Your task to perform on an android device: turn pop-ups on in chrome Image 0: 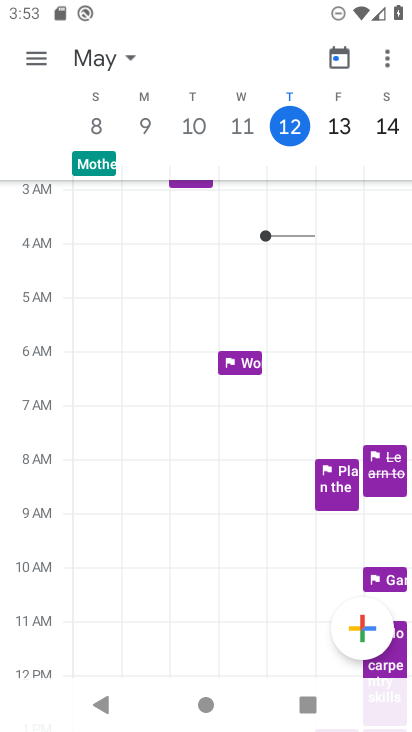
Step 0: press home button
Your task to perform on an android device: turn pop-ups on in chrome Image 1: 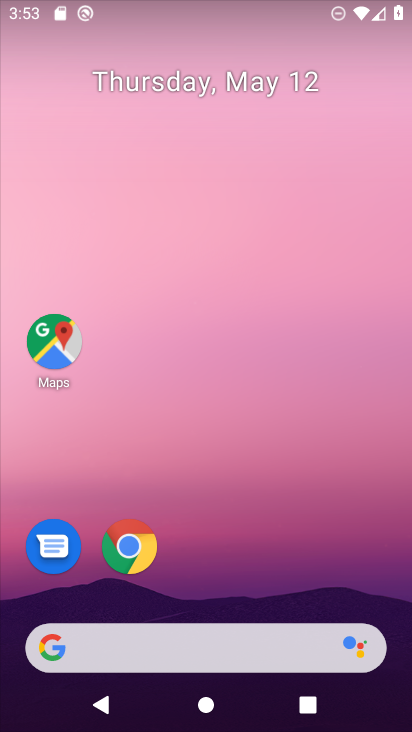
Step 1: drag from (276, 599) to (283, 295)
Your task to perform on an android device: turn pop-ups on in chrome Image 2: 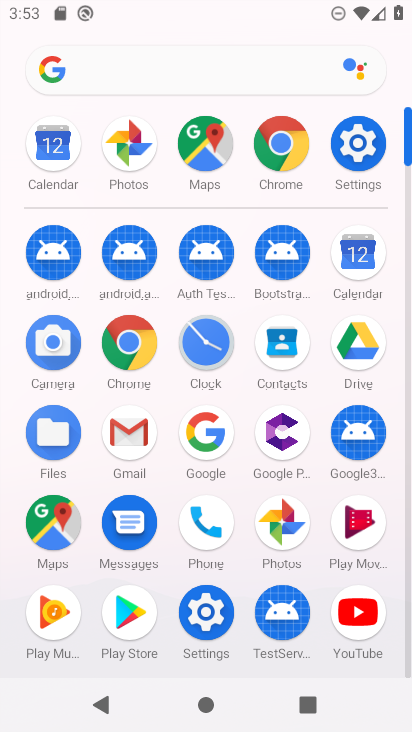
Step 2: click (276, 145)
Your task to perform on an android device: turn pop-ups on in chrome Image 3: 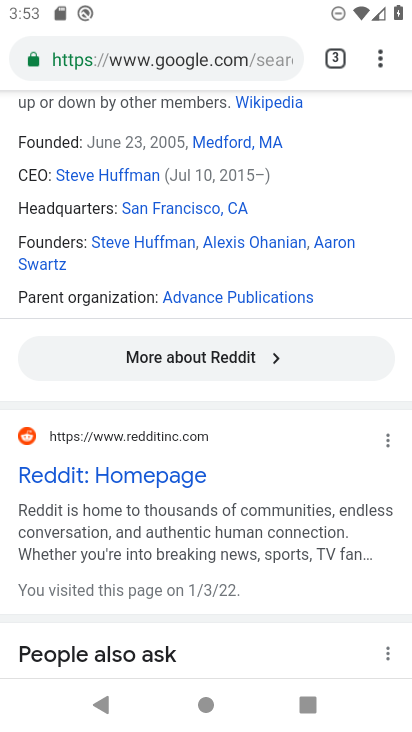
Step 3: click (371, 60)
Your task to perform on an android device: turn pop-ups on in chrome Image 4: 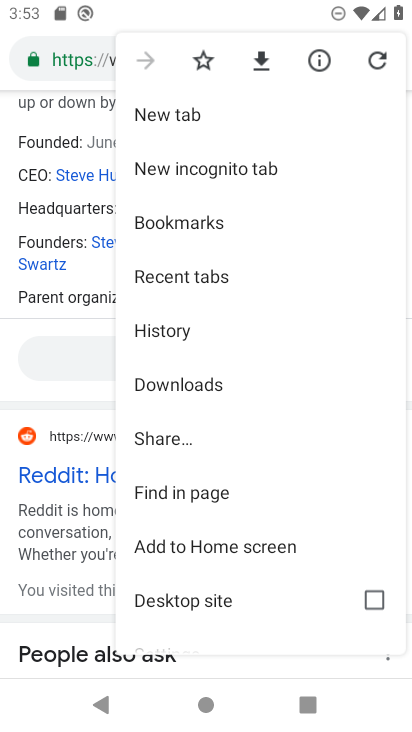
Step 4: drag from (232, 514) to (283, 216)
Your task to perform on an android device: turn pop-ups on in chrome Image 5: 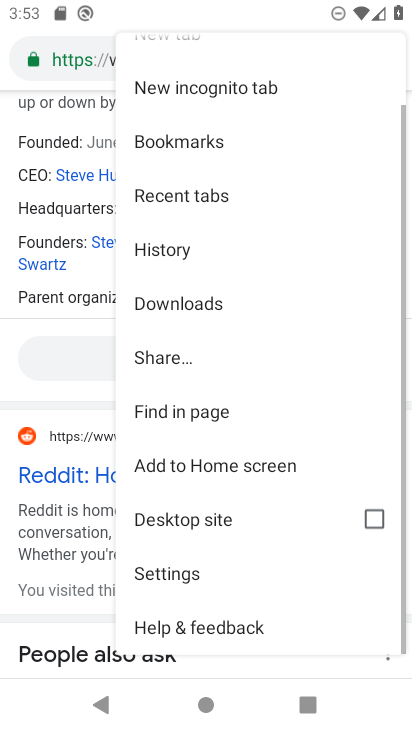
Step 5: click (197, 567)
Your task to perform on an android device: turn pop-ups on in chrome Image 6: 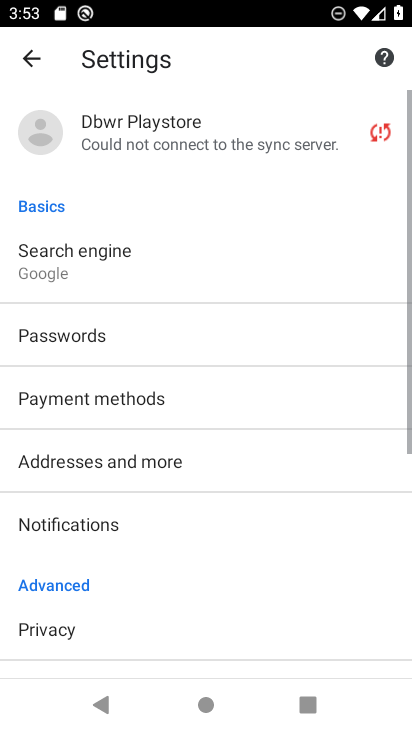
Step 6: drag from (199, 624) to (282, 201)
Your task to perform on an android device: turn pop-ups on in chrome Image 7: 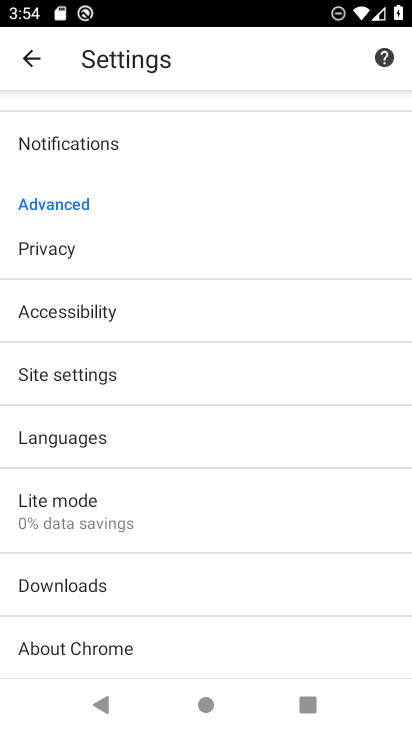
Step 7: click (113, 381)
Your task to perform on an android device: turn pop-ups on in chrome Image 8: 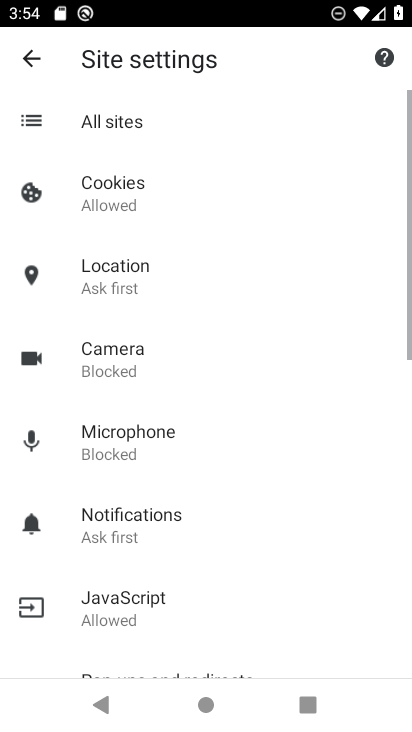
Step 8: drag from (164, 593) to (245, 240)
Your task to perform on an android device: turn pop-ups on in chrome Image 9: 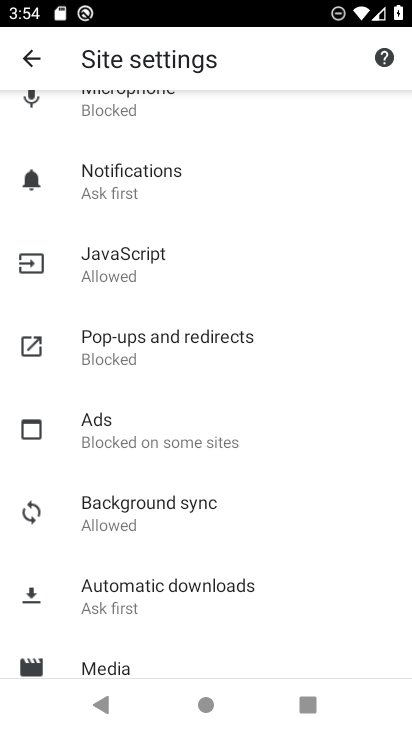
Step 9: click (182, 349)
Your task to perform on an android device: turn pop-ups on in chrome Image 10: 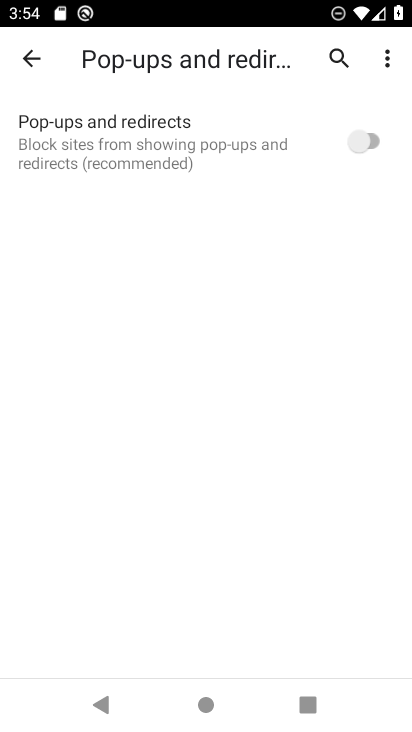
Step 10: click (370, 140)
Your task to perform on an android device: turn pop-ups on in chrome Image 11: 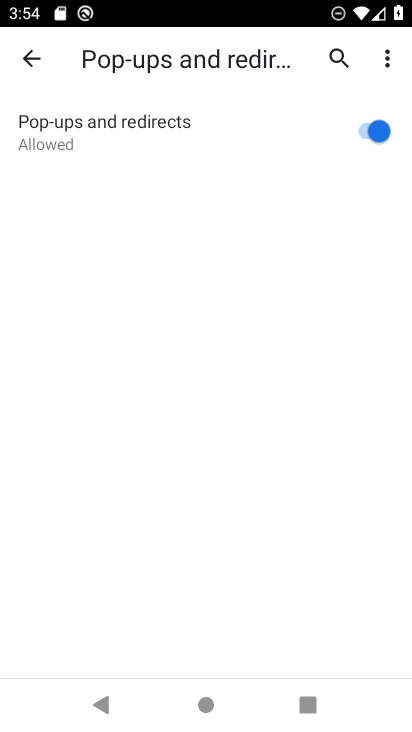
Step 11: task complete